Your task to perform on an android device: turn off priority inbox in the gmail app Image 0: 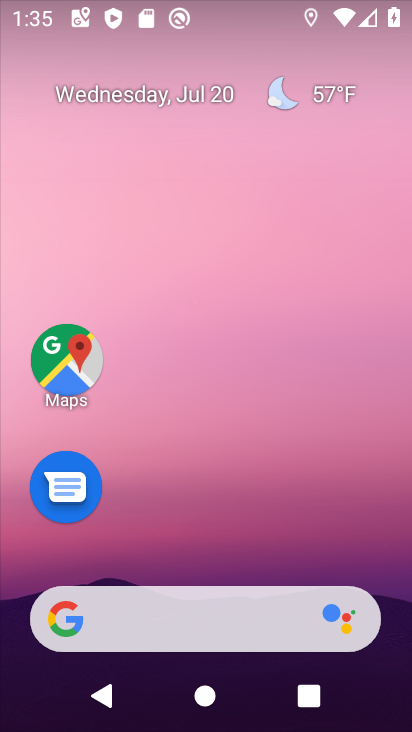
Step 0: drag from (237, 565) to (232, 15)
Your task to perform on an android device: turn off priority inbox in the gmail app Image 1: 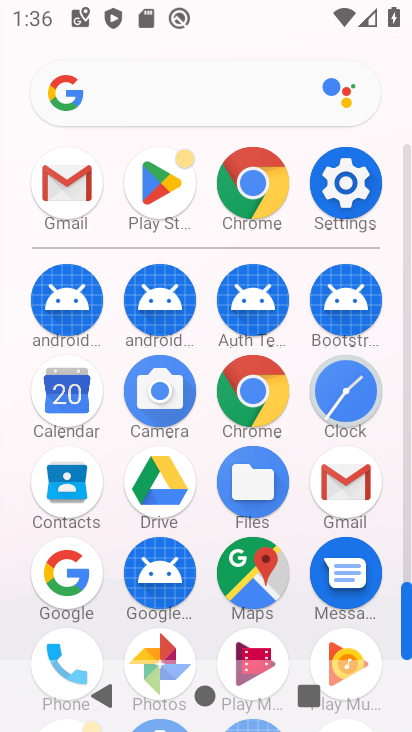
Step 1: click (90, 184)
Your task to perform on an android device: turn off priority inbox in the gmail app Image 2: 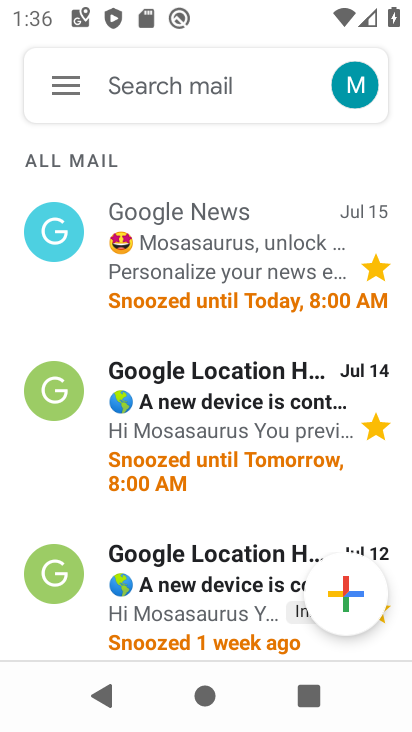
Step 2: click (55, 86)
Your task to perform on an android device: turn off priority inbox in the gmail app Image 3: 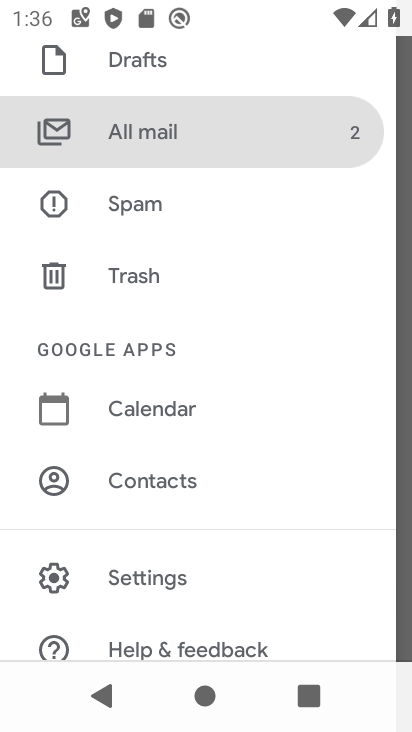
Step 3: click (176, 578)
Your task to perform on an android device: turn off priority inbox in the gmail app Image 4: 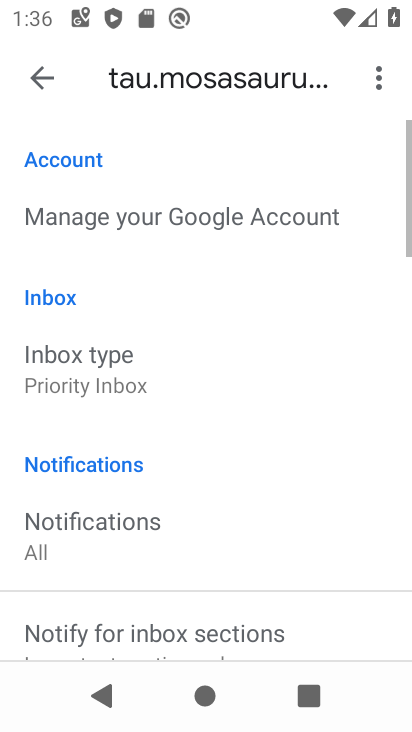
Step 4: drag from (164, 601) to (219, 133)
Your task to perform on an android device: turn off priority inbox in the gmail app Image 5: 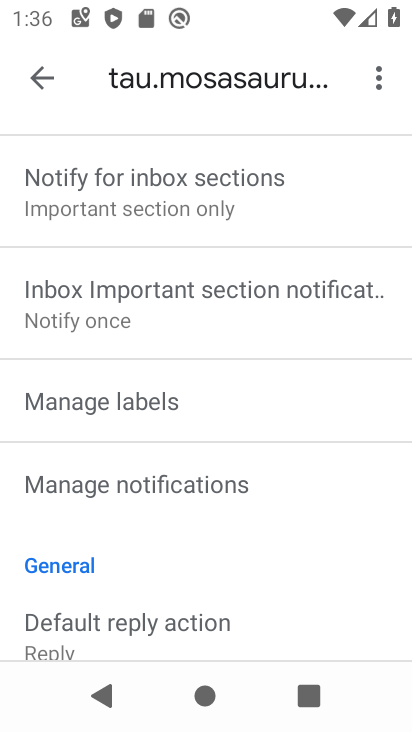
Step 5: drag from (271, 198) to (217, 676)
Your task to perform on an android device: turn off priority inbox in the gmail app Image 6: 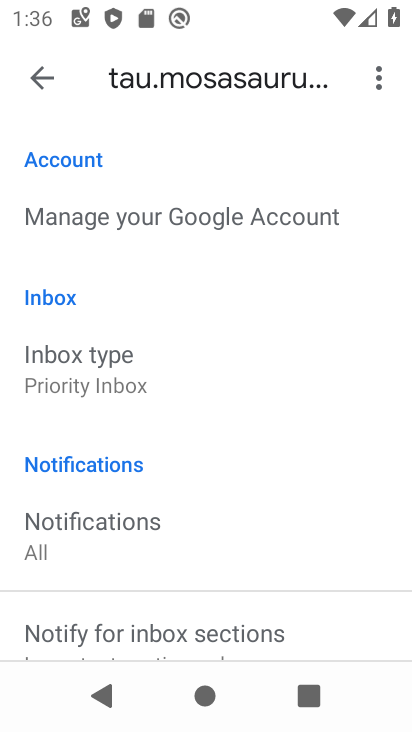
Step 6: click (70, 378)
Your task to perform on an android device: turn off priority inbox in the gmail app Image 7: 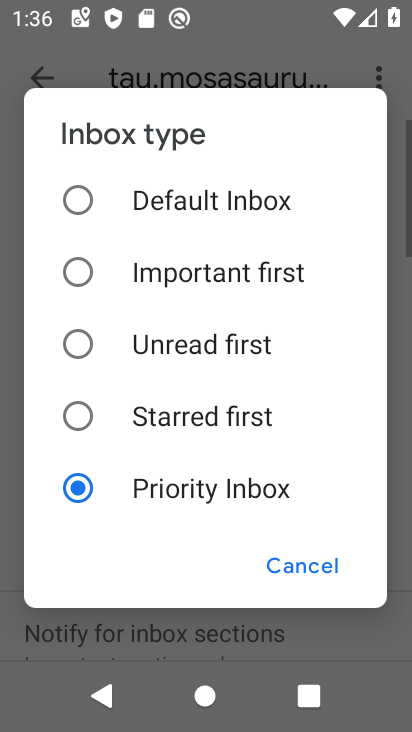
Step 7: click (71, 202)
Your task to perform on an android device: turn off priority inbox in the gmail app Image 8: 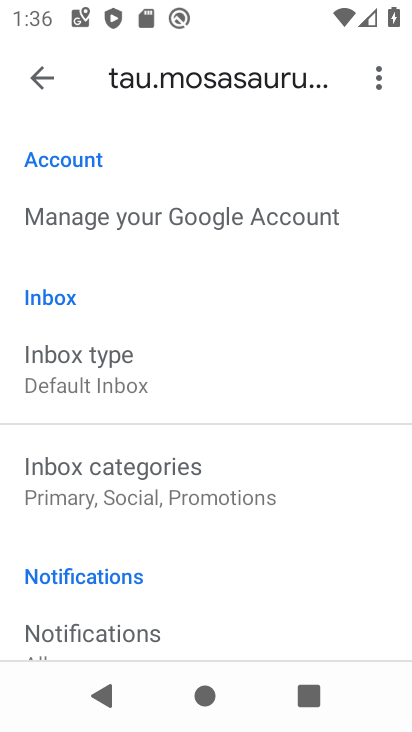
Step 8: task complete